Your task to perform on an android device: Do I have any events today? Image 0: 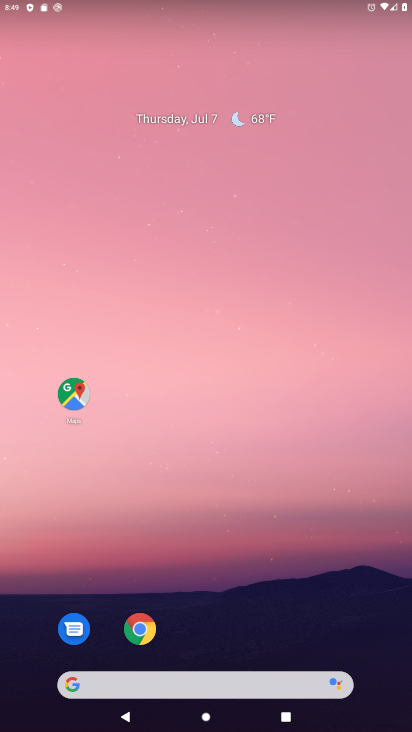
Step 0: drag from (196, 627) to (228, 241)
Your task to perform on an android device: Do I have any events today? Image 1: 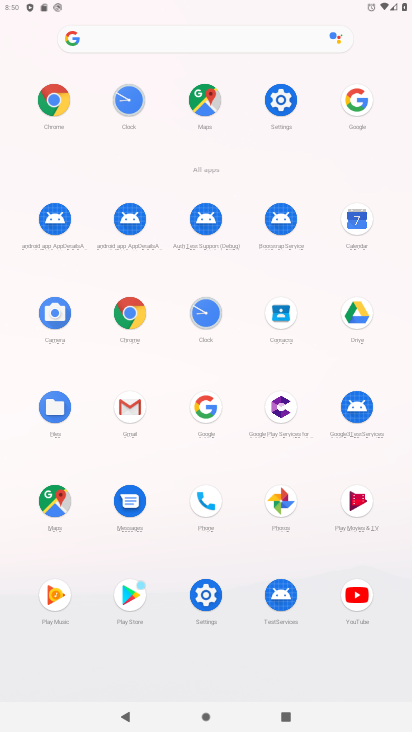
Step 1: click (354, 228)
Your task to perform on an android device: Do I have any events today? Image 2: 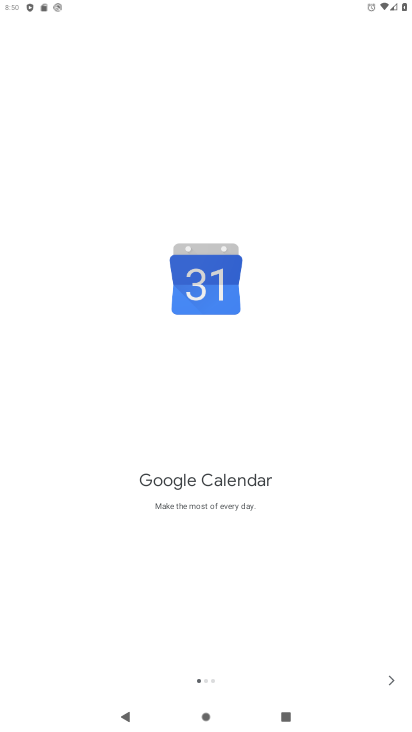
Step 2: click (395, 678)
Your task to perform on an android device: Do I have any events today? Image 3: 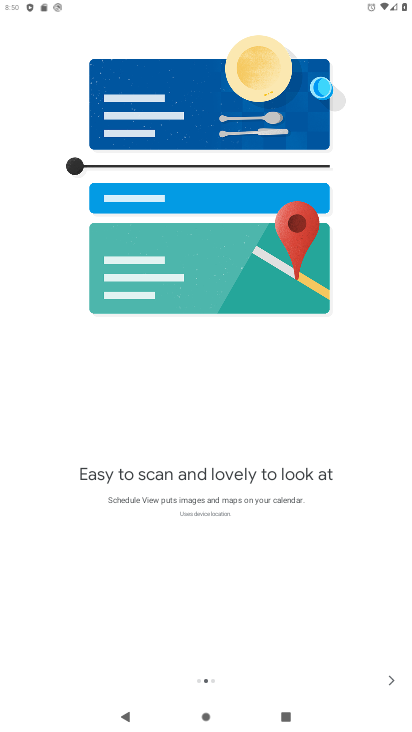
Step 3: click (394, 678)
Your task to perform on an android device: Do I have any events today? Image 4: 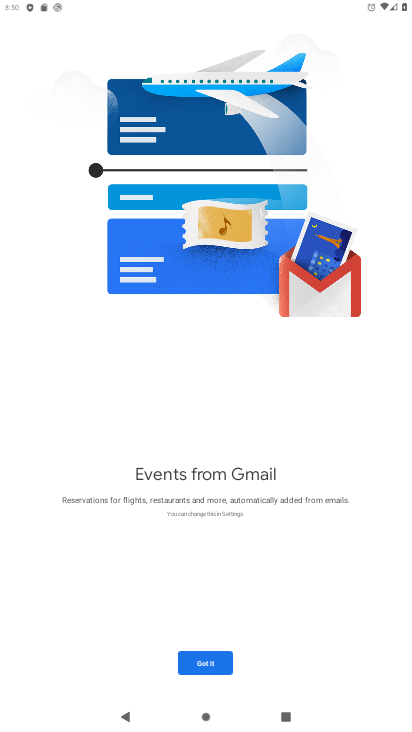
Step 4: click (192, 666)
Your task to perform on an android device: Do I have any events today? Image 5: 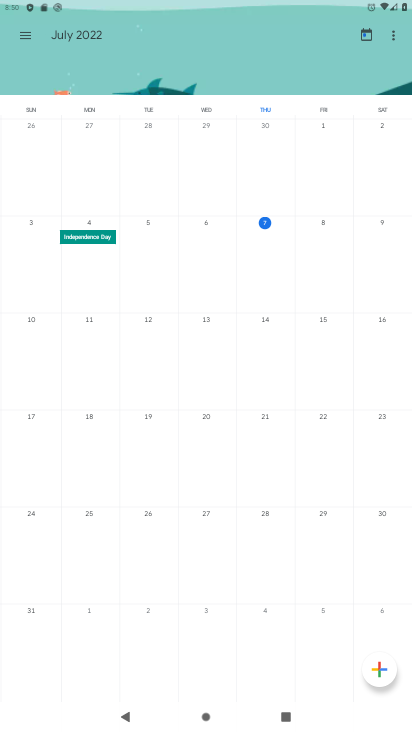
Step 5: click (265, 223)
Your task to perform on an android device: Do I have any events today? Image 6: 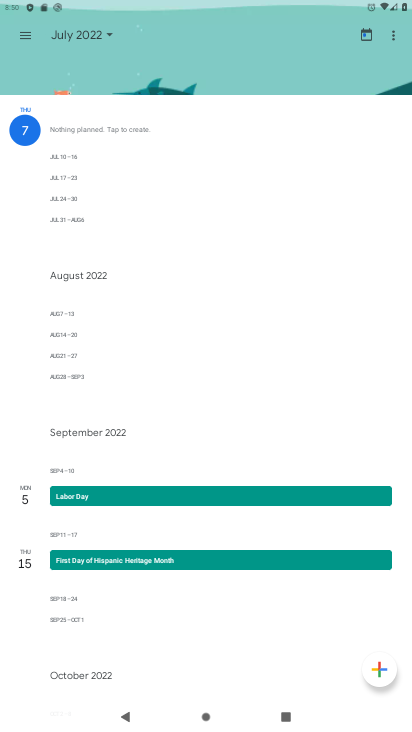
Step 6: task complete